Your task to perform on an android device: set default search engine in the chrome app Image 0: 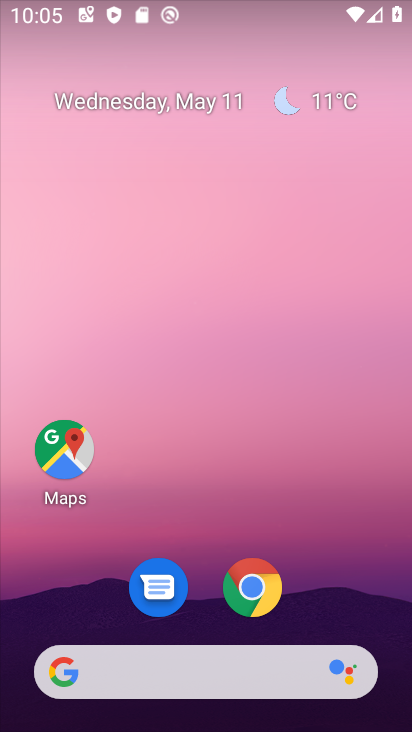
Step 0: drag from (314, 687) to (261, 245)
Your task to perform on an android device: set default search engine in the chrome app Image 1: 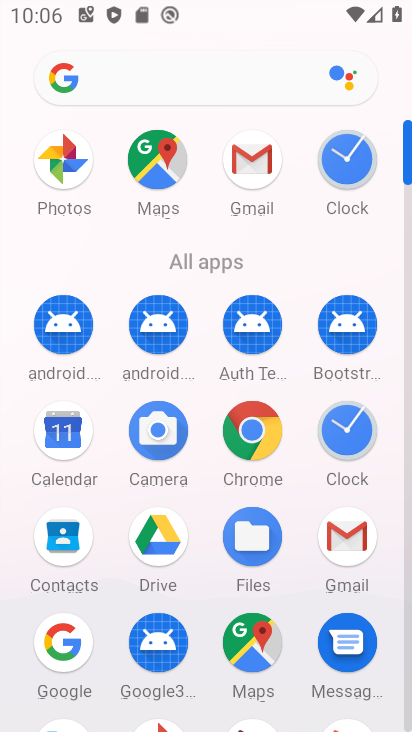
Step 1: click (242, 454)
Your task to perform on an android device: set default search engine in the chrome app Image 2: 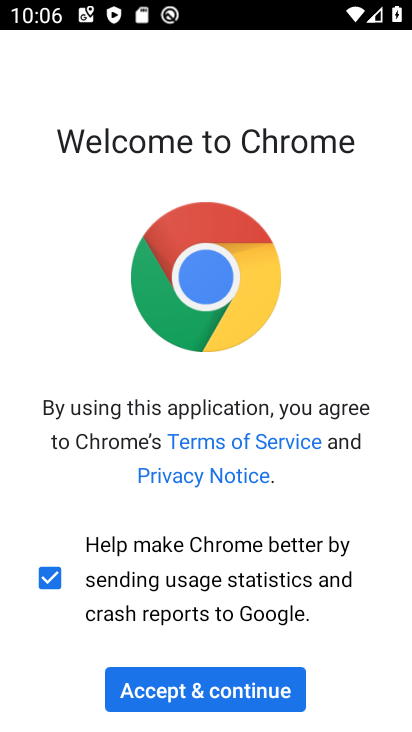
Step 2: click (224, 698)
Your task to perform on an android device: set default search engine in the chrome app Image 3: 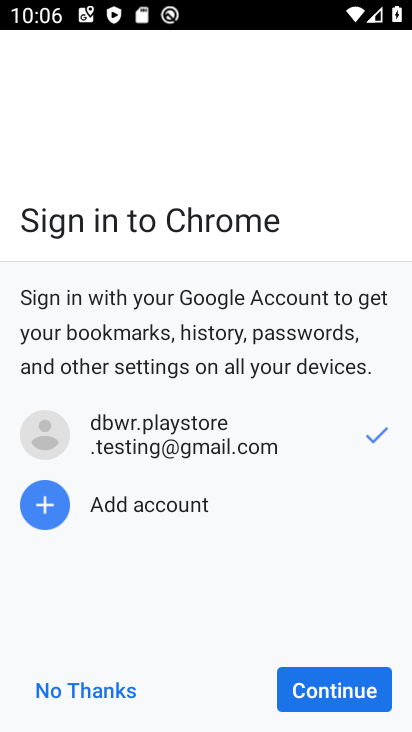
Step 3: click (333, 694)
Your task to perform on an android device: set default search engine in the chrome app Image 4: 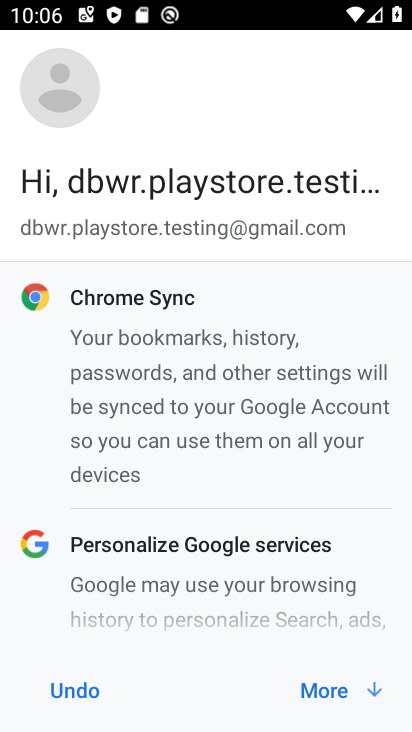
Step 4: click (361, 681)
Your task to perform on an android device: set default search engine in the chrome app Image 5: 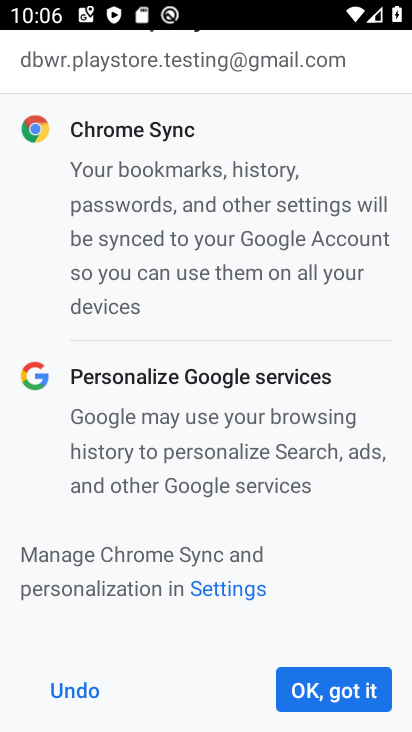
Step 5: click (320, 686)
Your task to perform on an android device: set default search engine in the chrome app Image 6: 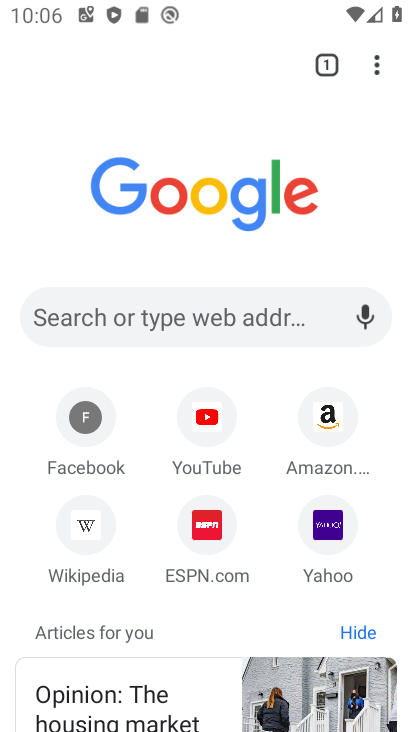
Step 6: click (378, 61)
Your task to perform on an android device: set default search engine in the chrome app Image 7: 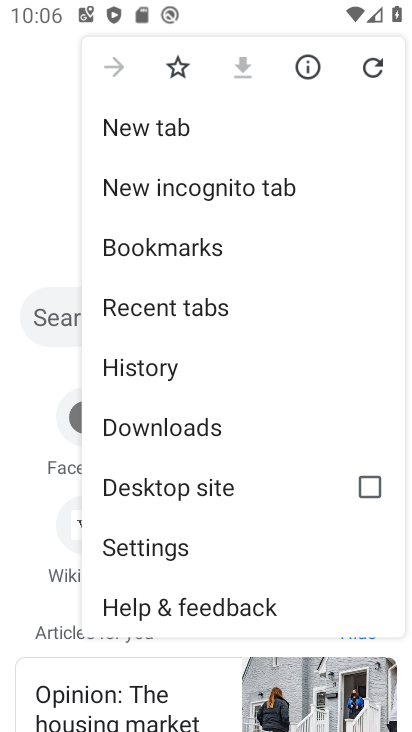
Step 7: click (174, 544)
Your task to perform on an android device: set default search engine in the chrome app Image 8: 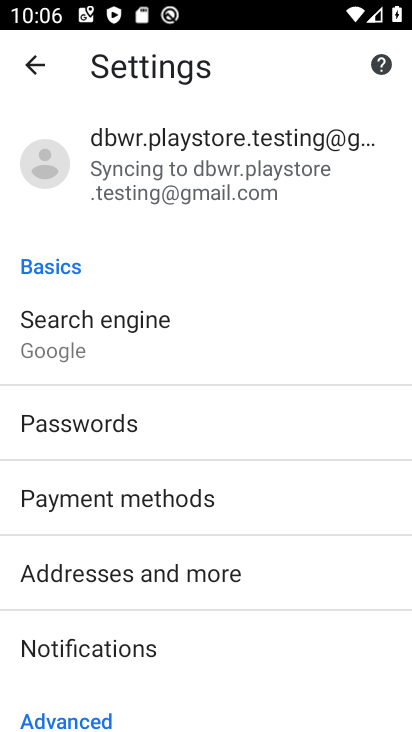
Step 8: click (113, 352)
Your task to perform on an android device: set default search engine in the chrome app Image 9: 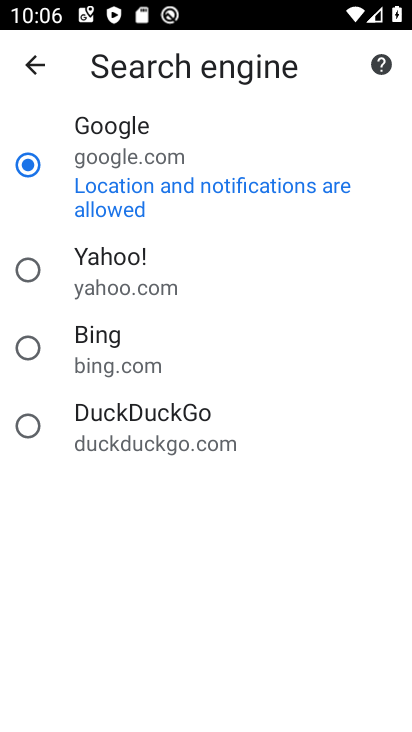
Step 9: task complete